Your task to perform on an android device: Open Google Chrome and open the bookmarks view Image 0: 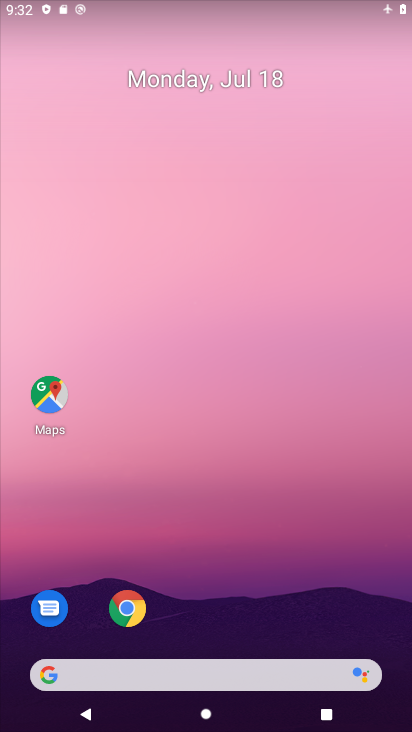
Step 0: drag from (274, 628) to (163, 30)
Your task to perform on an android device: Open Google Chrome and open the bookmarks view Image 1: 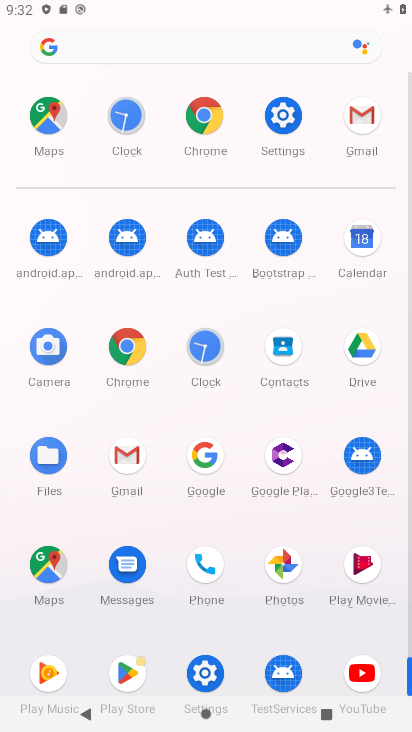
Step 1: click (201, 125)
Your task to perform on an android device: Open Google Chrome and open the bookmarks view Image 2: 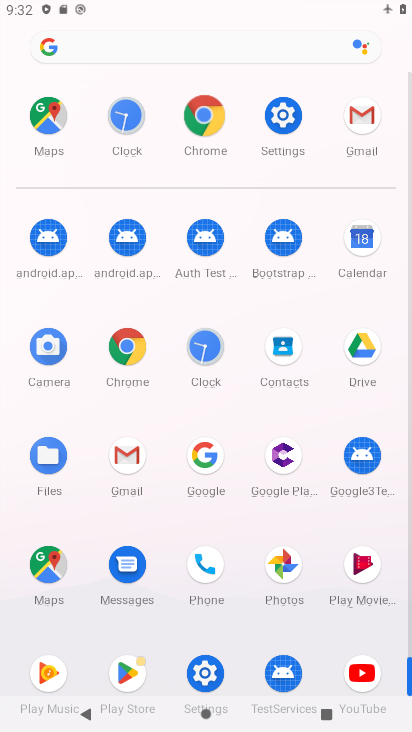
Step 2: click (201, 124)
Your task to perform on an android device: Open Google Chrome and open the bookmarks view Image 3: 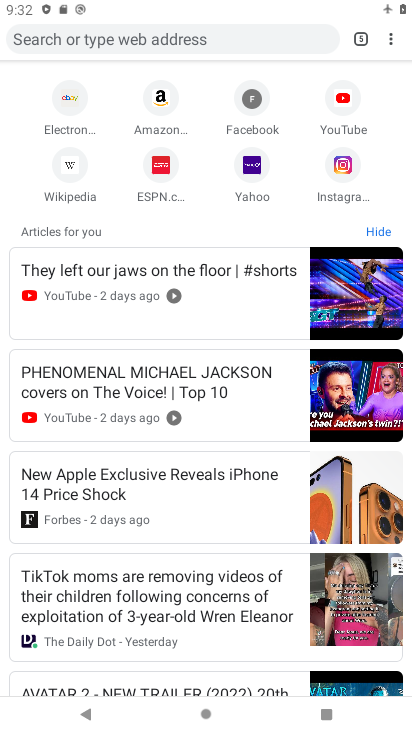
Step 3: drag from (394, 34) to (255, 330)
Your task to perform on an android device: Open Google Chrome and open the bookmarks view Image 4: 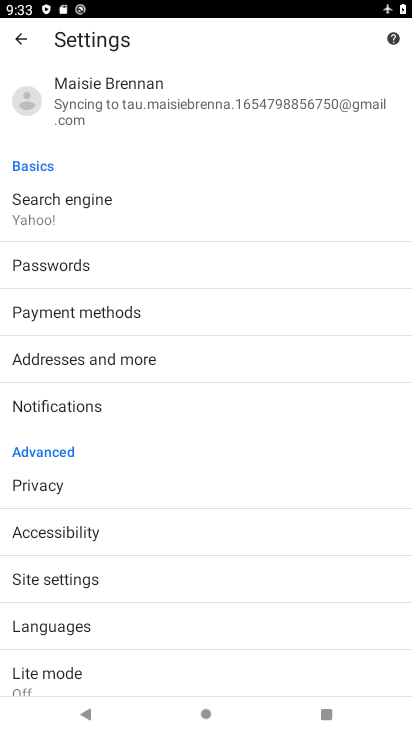
Step 4: click (14, 33)
Your task to perform on an android device: Open Google Chrome and open the bookmarks view Image 5: 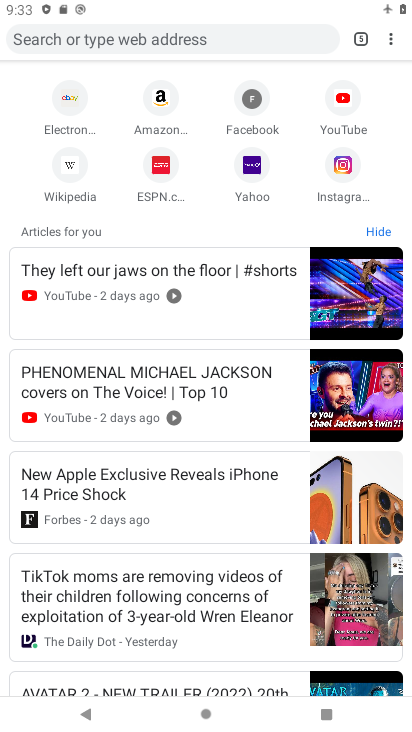
Step 5: drag from (392, 32) to (274, 145)
Your task to perform on an android device: Open Google Chrome and open the bookmarks view Image 6: 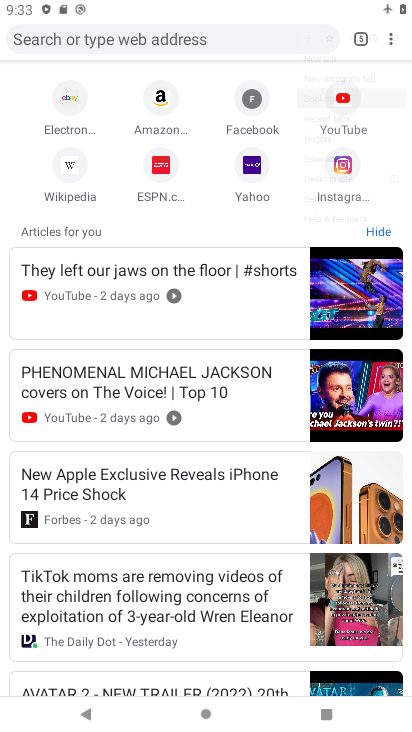
Step 6: click (274, 145)
Your task to perform on an android device: Open Google Chrome and open the bookmarks view Image 7: 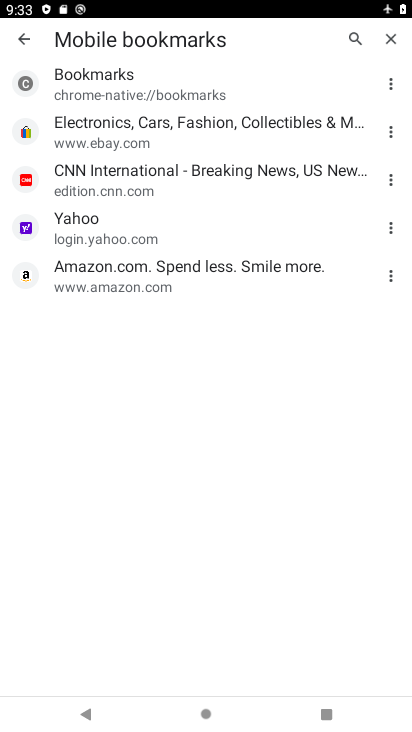
Step 7: task complete